Your task to perform on an android device: Go to location settings Image 0: 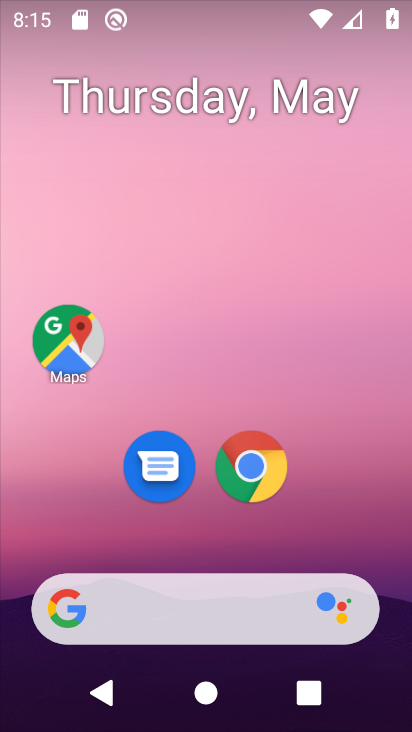
Step 0: drag from (334, 526) to (330, 141)
Your task to perform on an android device: Go to location settings Image 1: 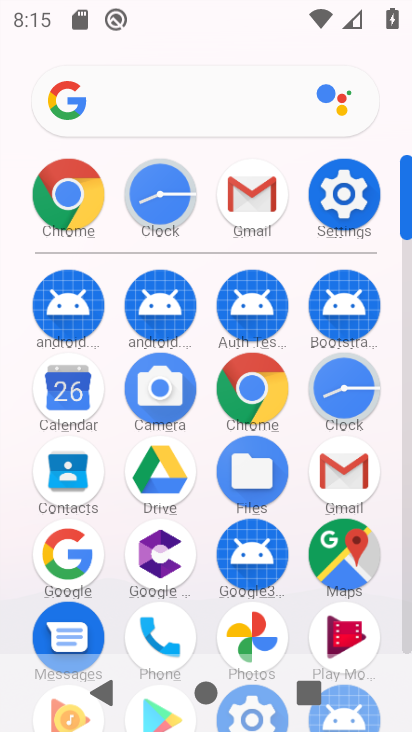
Step 1: click (341, 190)
Your task to perform on an android device: Go to location settings Image 2: 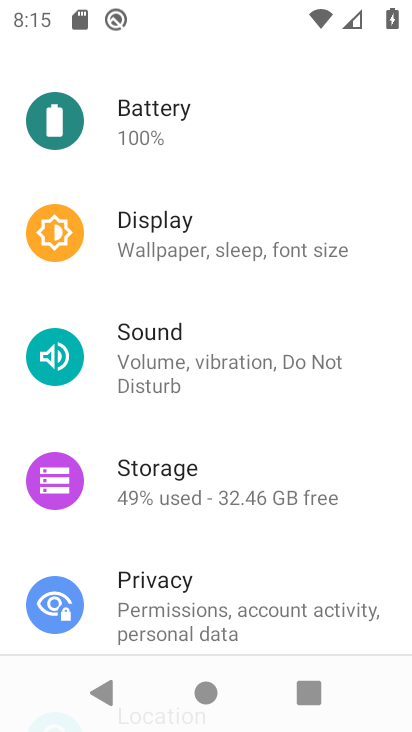
Step 2: drag from (222, 561) to (225, 360)
Your task to perform on an android device: Go to location settings Image 3: 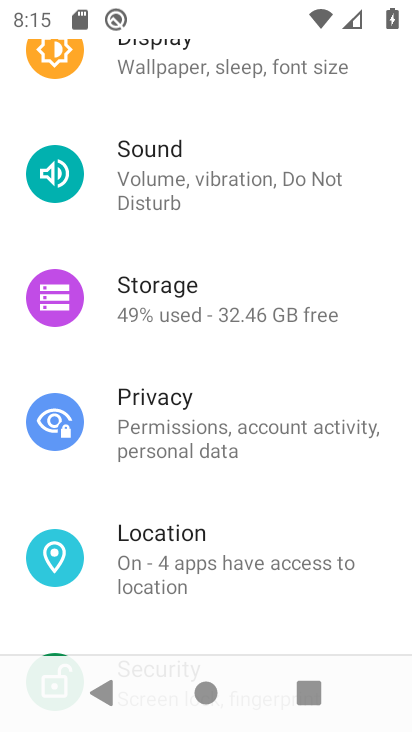
Step 3: click (225, 604)
Your task to perform on an android device: Go to location settings Image 4: 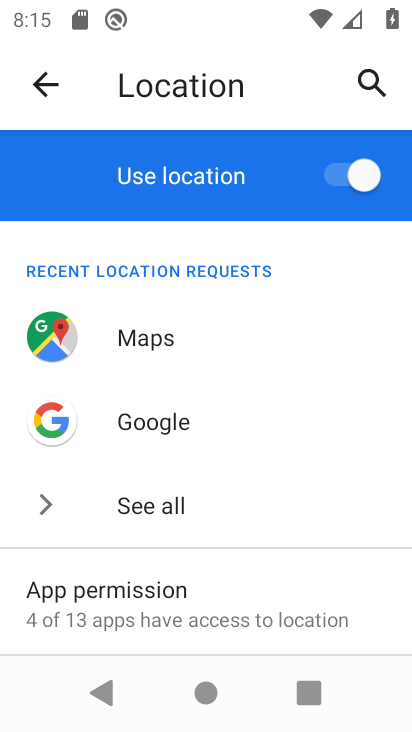
Step 4: task complete